Your task to perform on an android device: check out phone information Image 0: 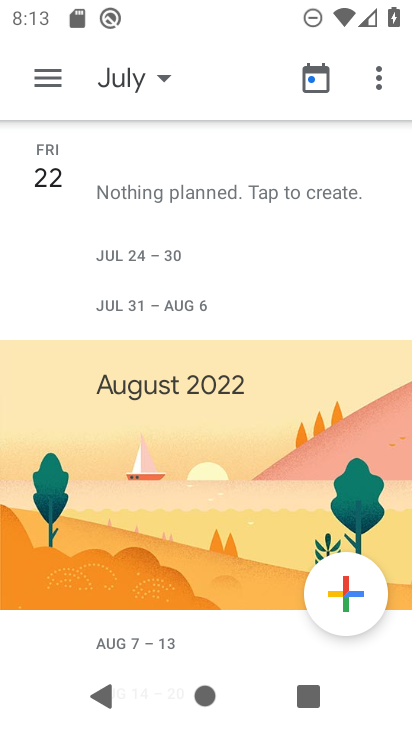
Step 0: press home button
Your task to perform on an android device: check out phone information Image 1: 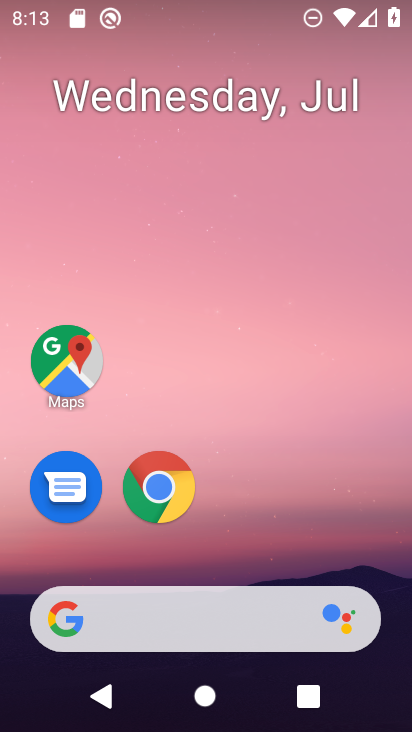
Step 1: drag from (354, 537) to (368, 80)
Your task to perform on an android device: check out phone information Image 2: 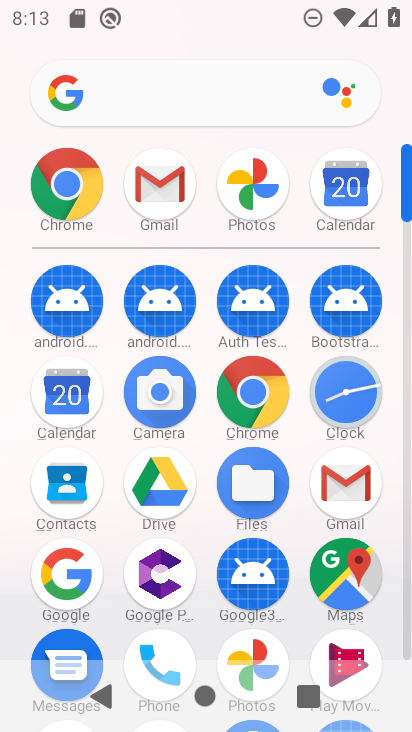
Step 2: drag from (400, 544) to (409, 209)
Your task to perform on an android device: check out phone information Image 3: 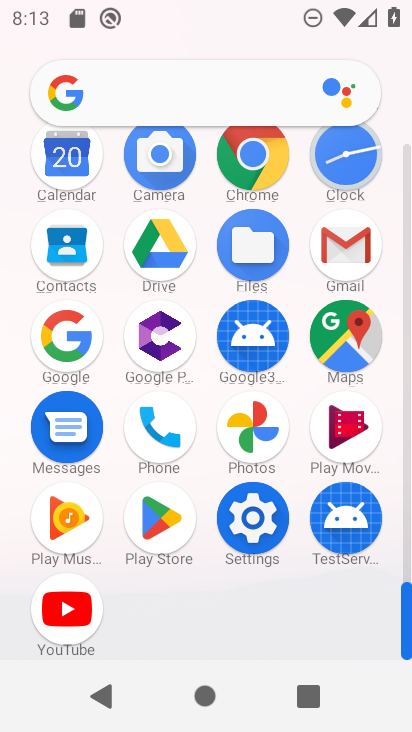
Step 3: click (158, 433)
Your task to perform on an android device: check out phone information Image 4: 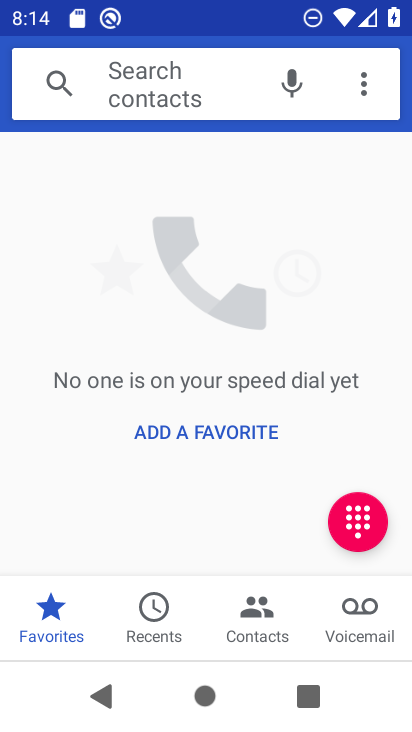
Step 4: task complete